Your task to perform on an android device: turn off notifications in google photos Image 0: 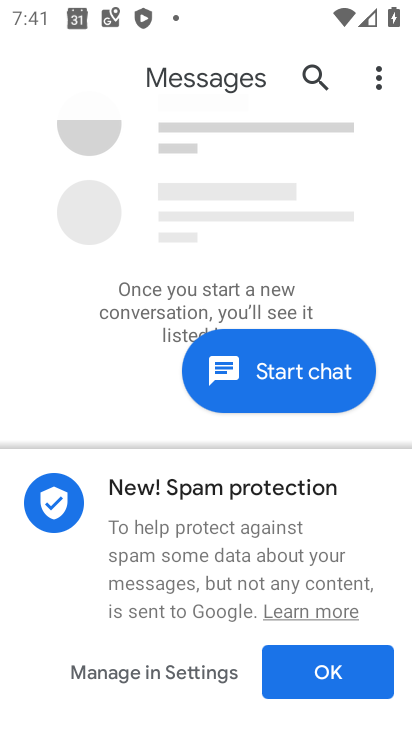
Step 0: press home button
Your task to perform on an android device: turn off notifications in google photos Image 1: 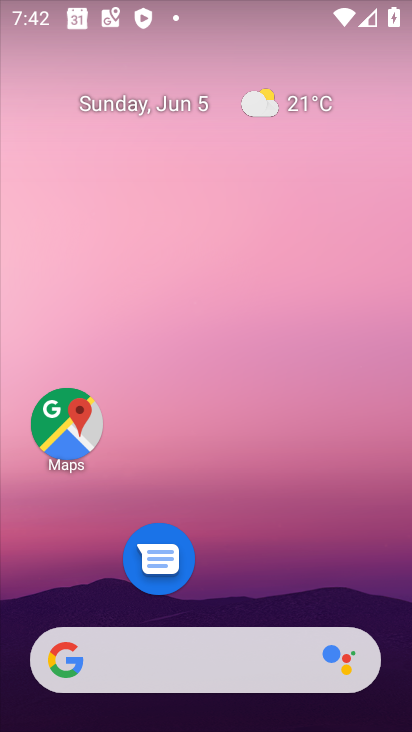
Step 1: drag from (223, 617) to (151, 76)
Your task to perform on an android device: turn off notifications in google photos Image 2: 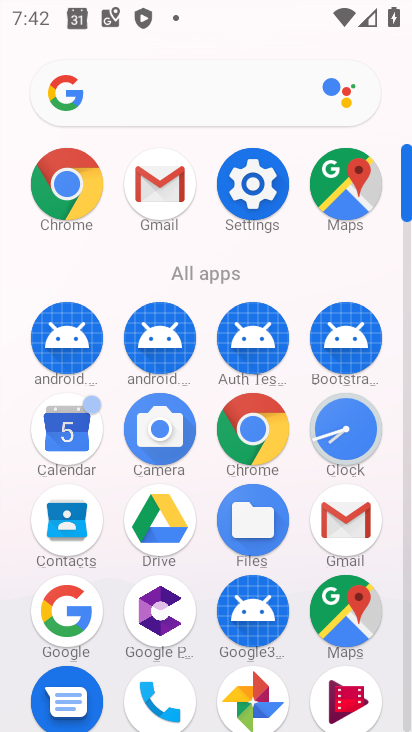
Step 2: click (248, 681)
Your task to perform on an android device: turn off notifications in google photos Image 3: 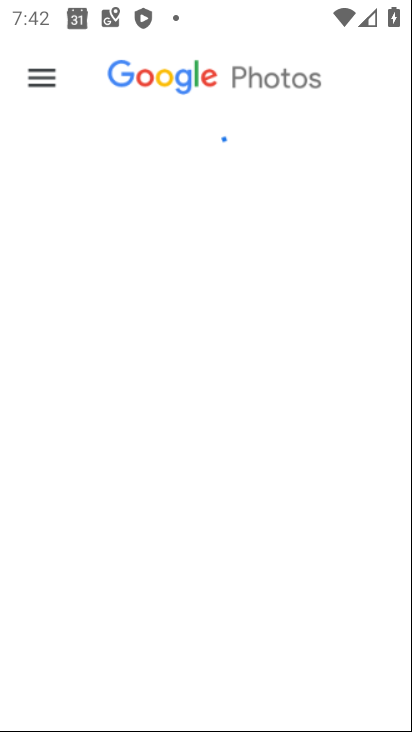
Step 3: click (42, 71)
Your task to perform on an android device: turn off notifications in google photos Image 4: 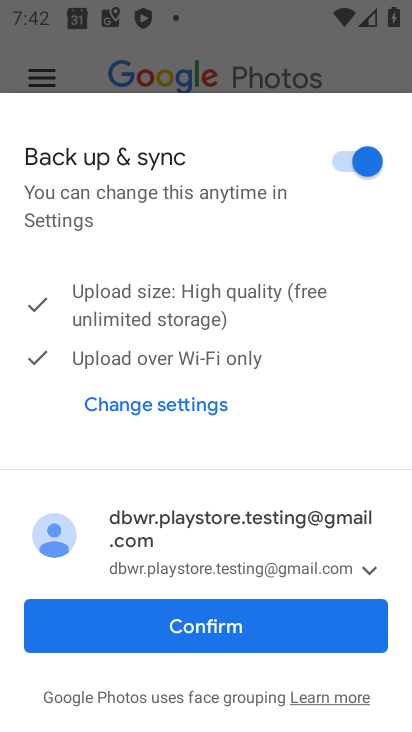
Step 4: click (258, 617)
Your task to perform on an android device: turn off notifications in google photos Image 5: 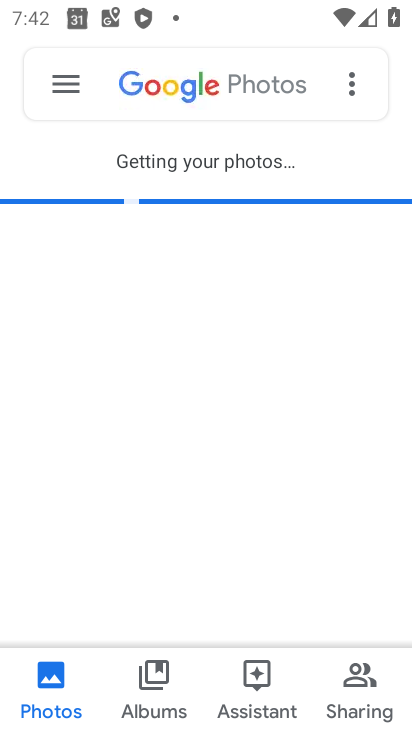
Step 5: click (22, 72)
Your task to perform on an android device: turn off notifications in google photos Image 6: 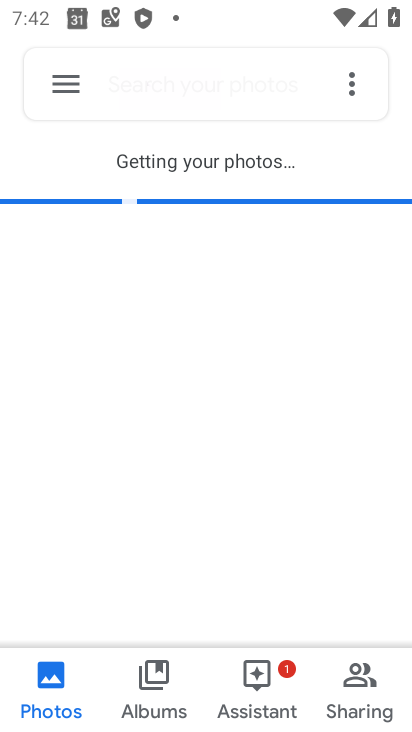
Step 6: click (47, 89)
Your task to perform on an android device: turn off notifications in google photos Image 7: 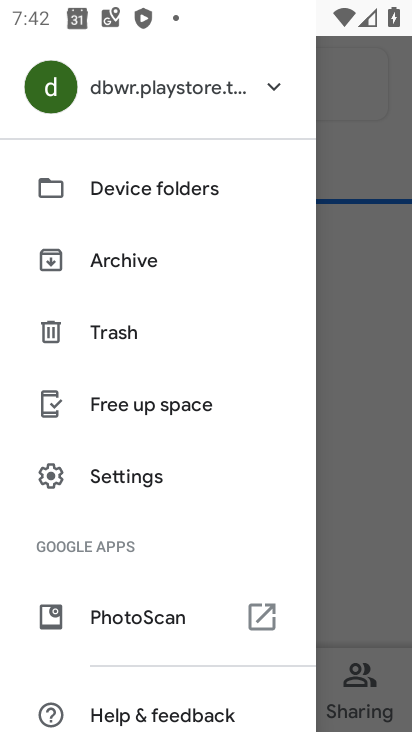
Step 7: click (140, 463)
Your task to perform on an android device: turn off notifications in google photos Image 8: 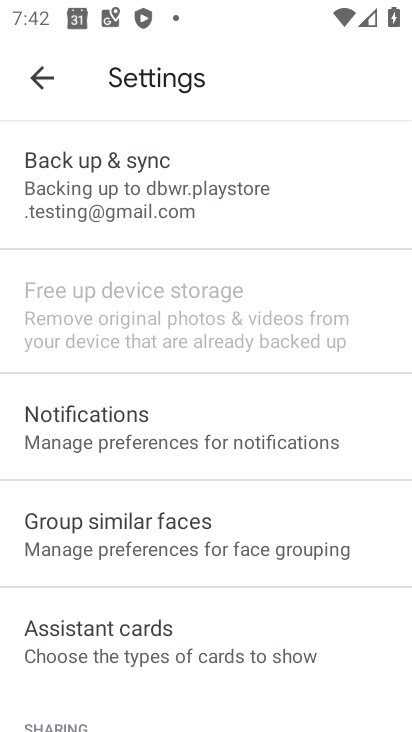
Step 8: click (139, 465)
Your task to perform on an android device: turn off notifications in google photos Image 9: 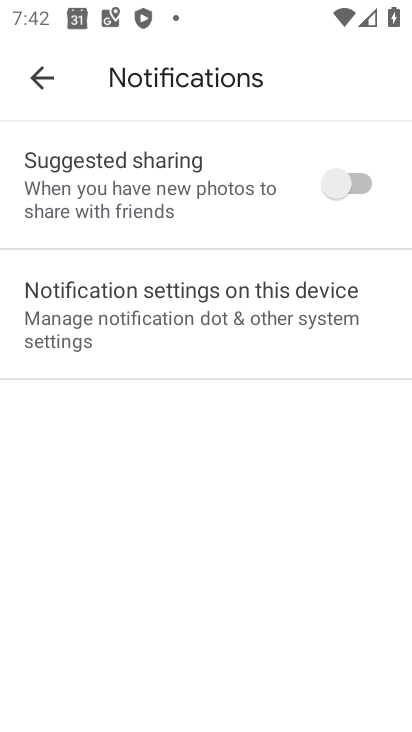
Step 9: click (273, 323)
Your task to perform on an android device: turn off notifications in google photos Image 10: 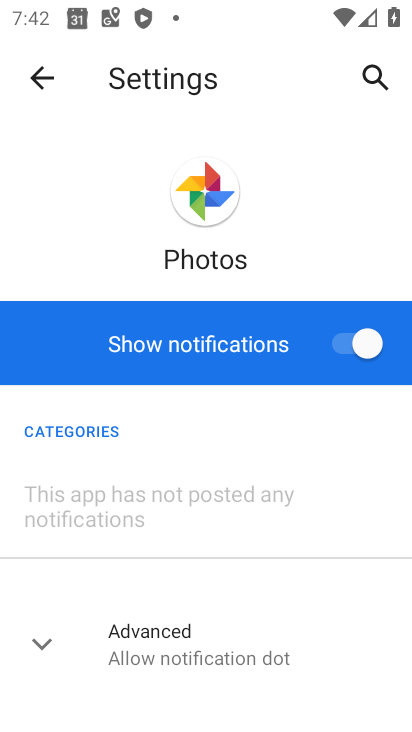
Step 10: click (338, 345)
Your task to perform on an android device: turn off notifications in google photos Image 11: 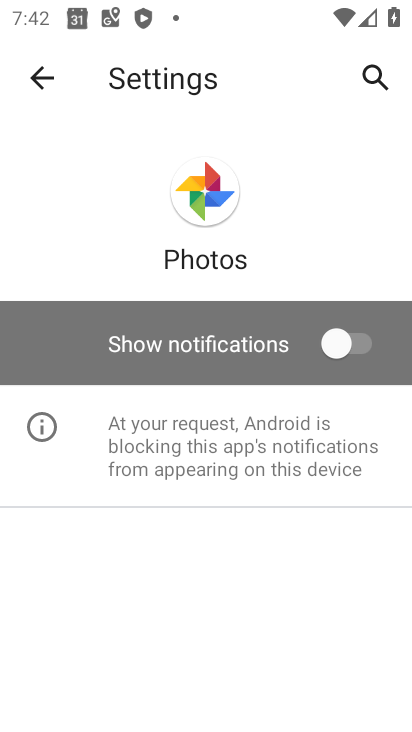
Step 11: task complete